Your task to perform on an android device: turn on airplane mode Image 0: 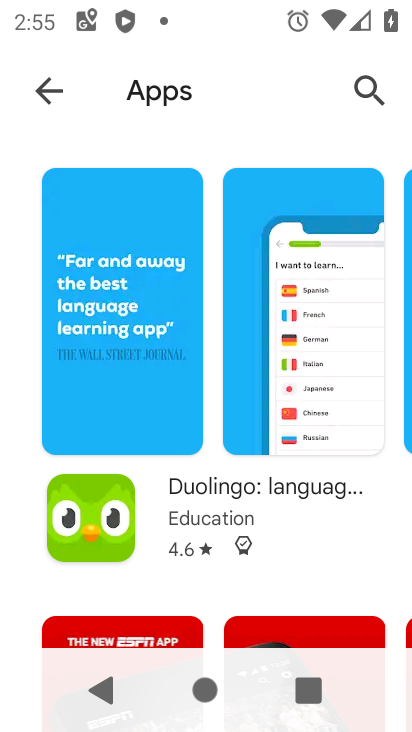
Step 0: press home button
Your task to perform on an android device: turn on airplane mode Image 1: 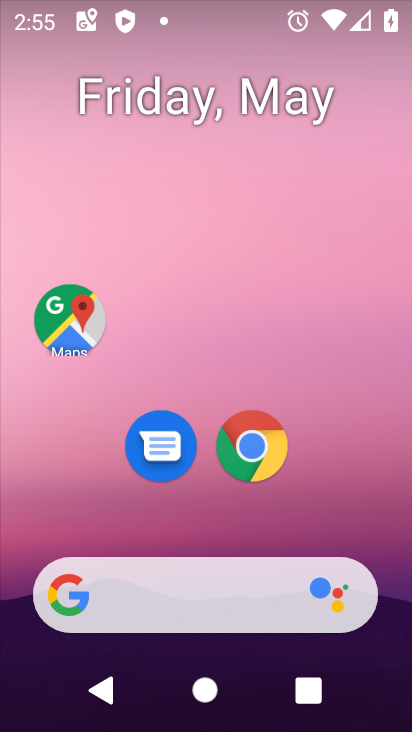
Step 1: drag from (402, 575) to (334, 207)
Your task to perform on an android device: turn on airplane mode Image 2: 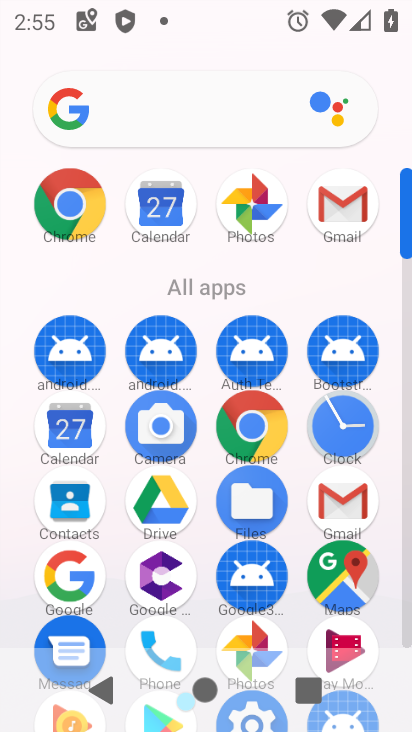
Step 2: click (406, 635)
Your task to perform on an android device: turn on airplane mode Image 3: 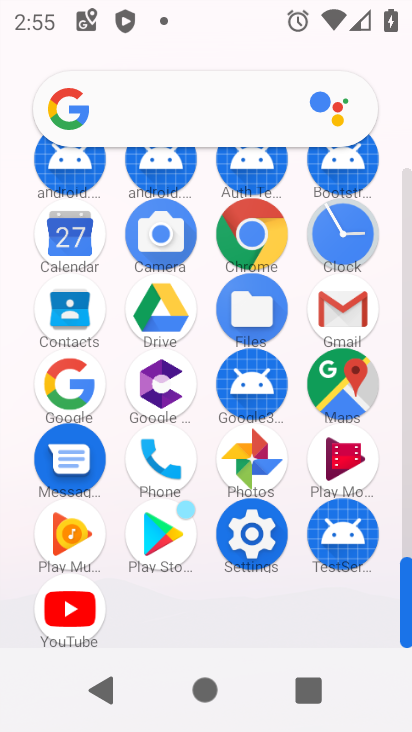
Step 3: click (259, 540)
Your task to perform on an android device: turn on airplane mode Image 4: 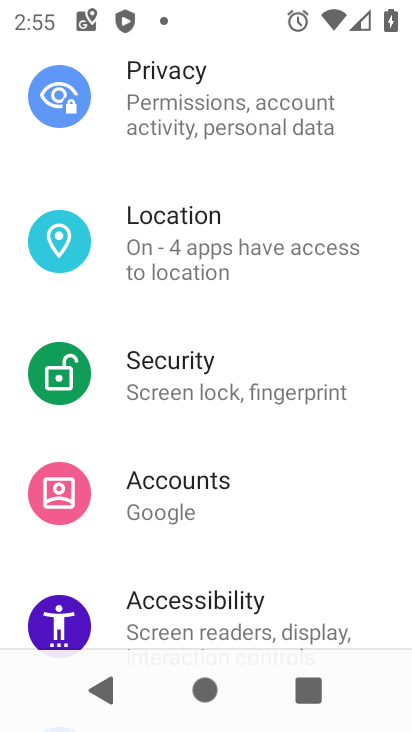
Step 4: drag from (261, 184) to (282, 516)
Your task to perform on an android device: turn on airplane mode Image 5: 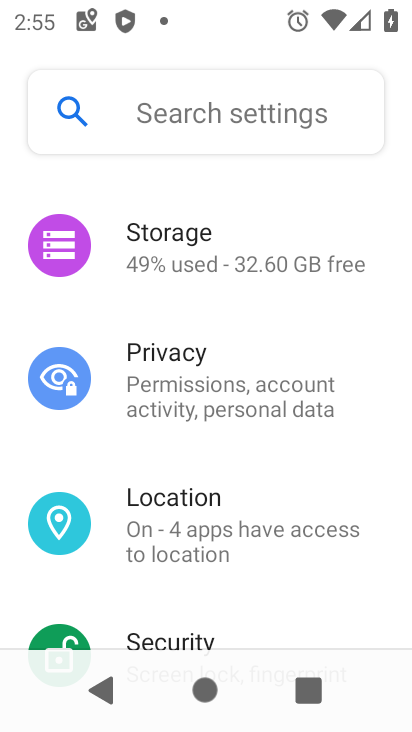
Step 5: drag from (241, 184) to (293, 706)
Your task to perform on an android device: turn on airplane mode Image 6: 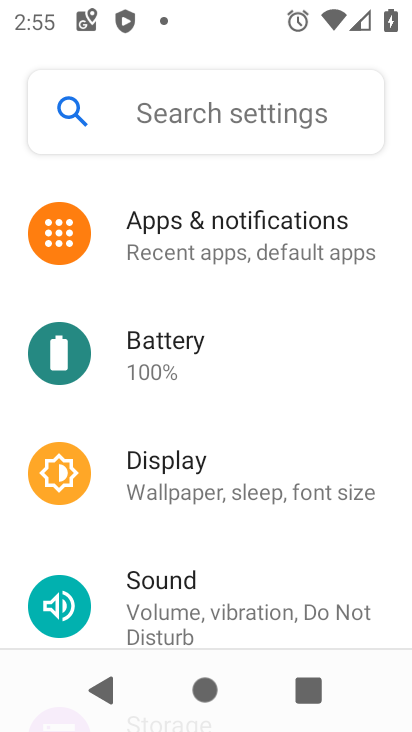
Step 6: drag from (239, 188) to (276, 642)
Your task to perform on an android device: turn on airplane mode Image 7: 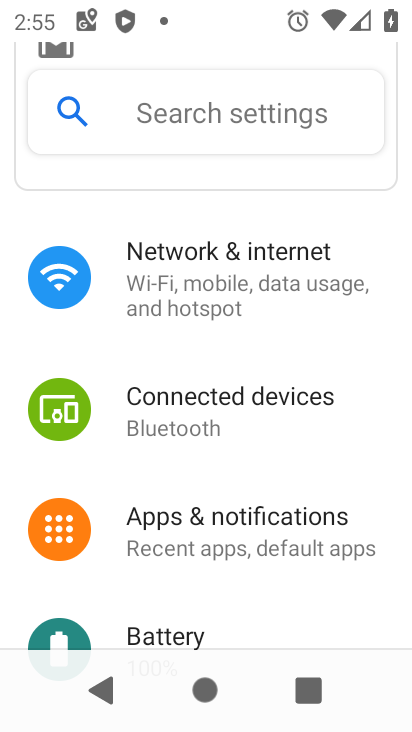
Step 7: click (243, 301)
Your task to perform on an android device: turn on airplane mode Image 8: 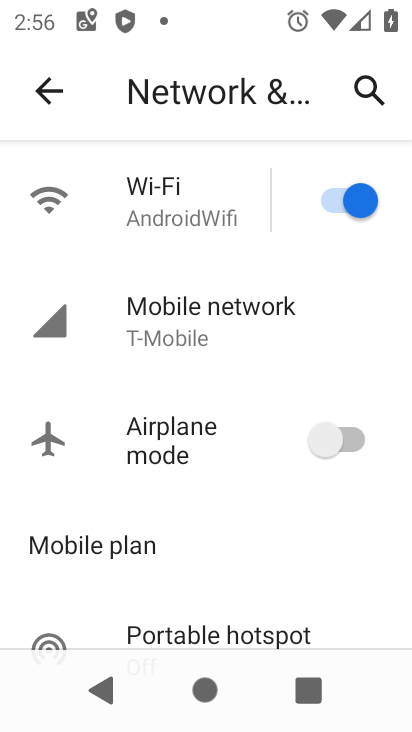
Step 8: click (352, 445)
Your task to perform on an android device: turn on airplane mode Image 9: 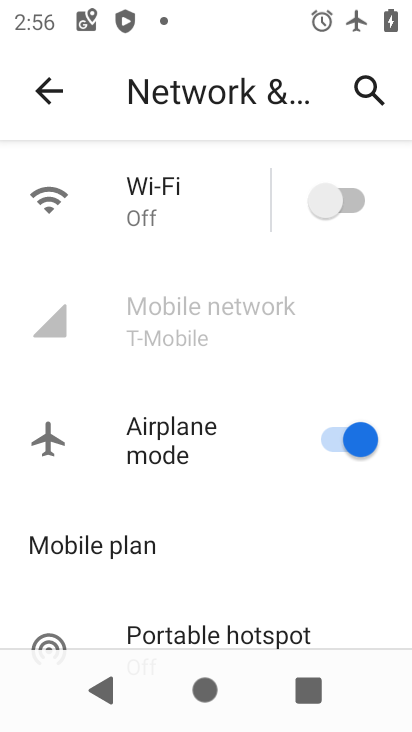
Step 9: task complete